Your task to perform on an android device: turn on data saver in the chrome app Image 0: 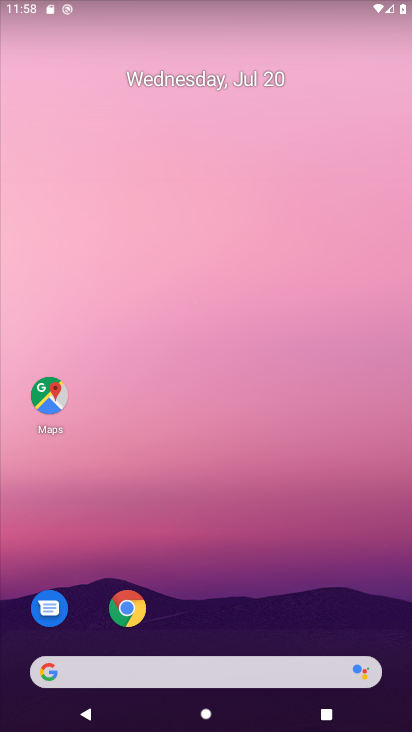
Step 0: drag from (238, 615) to (314, 16)
Your task to perform on an android device: turn on data saver in the chrome app Image 1: 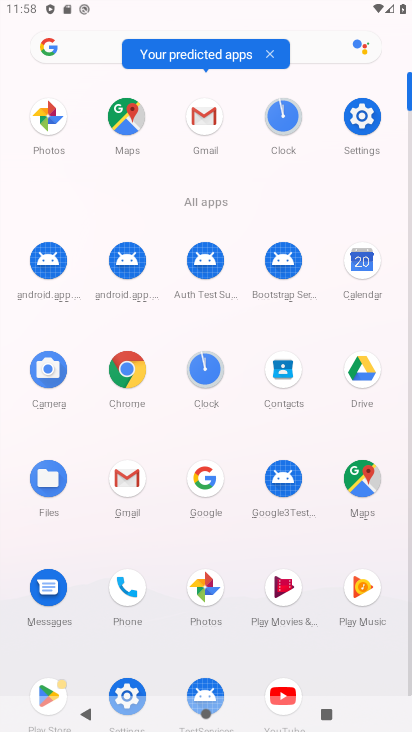
Step 1: click (125, 385)
Your task to perform on an android device: turn on data saver in the chrome app Image 2: 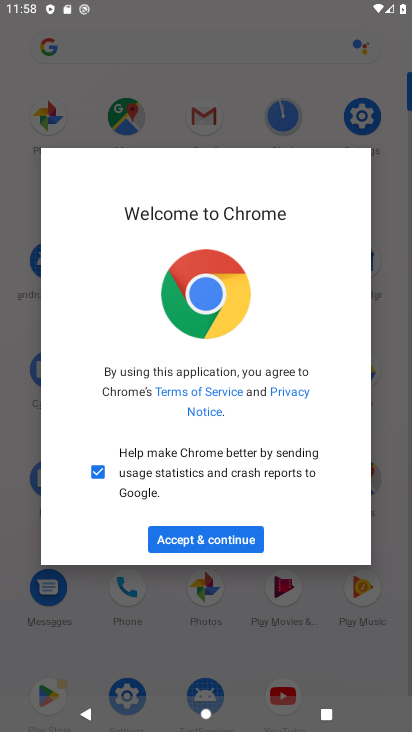
Step 2: click (187, 535)
Your task to perform on an android device: turn on data saver in the chrome app Image 3: 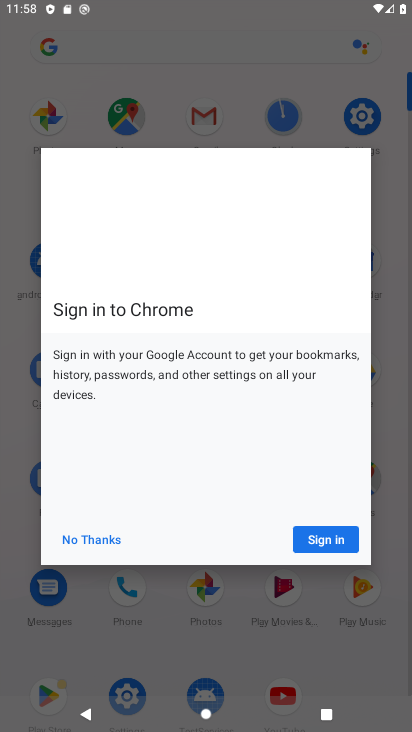
Step 3: click (345, 538)
Your task to perform on an android device: turn on data saver in the chrome app Image 4: 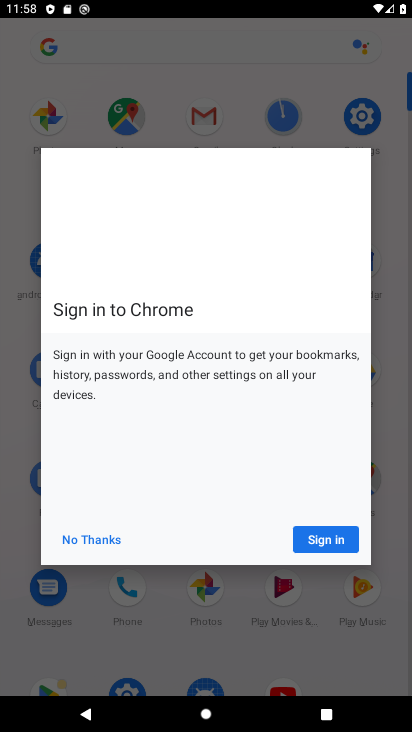
Step 4: click (316, 539)
Your task to perform on an android device: turn on data saver in the chrome app Image 5: 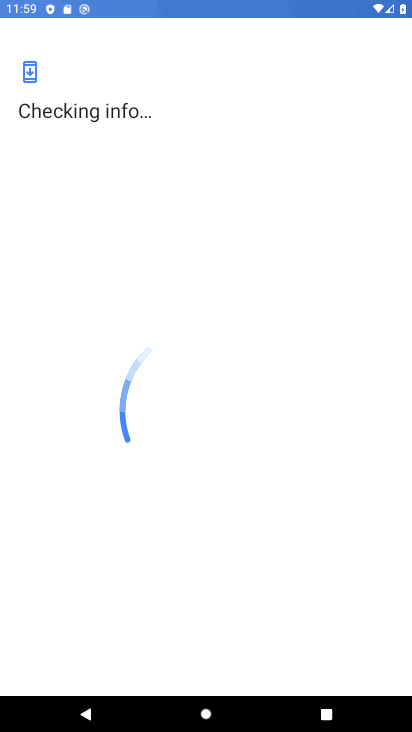
Step 5: press back button
Your task to perform on an android device: turn on data saver in the chrome app Image 6: 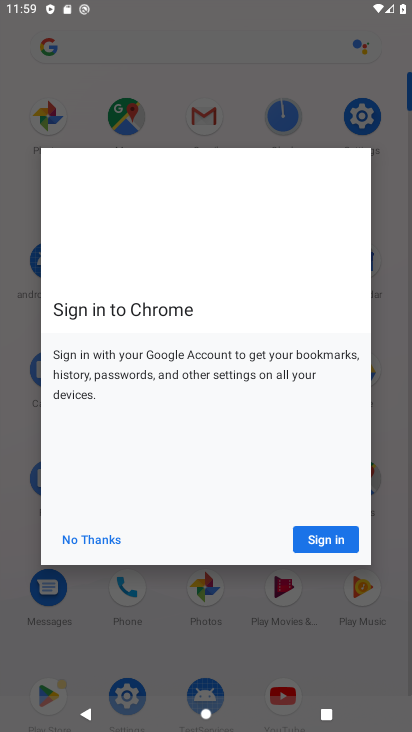
Step 6: click (89, 535)
Your task to perform on an android device: turn on data saver in the chrome app Image 7: 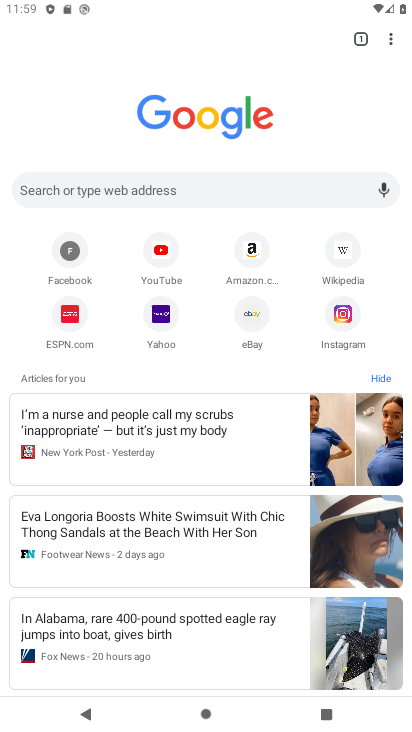
Step 7: click (387, 37)
Your task to perform on an android device: turn on data saver in the chrome app Image 8: 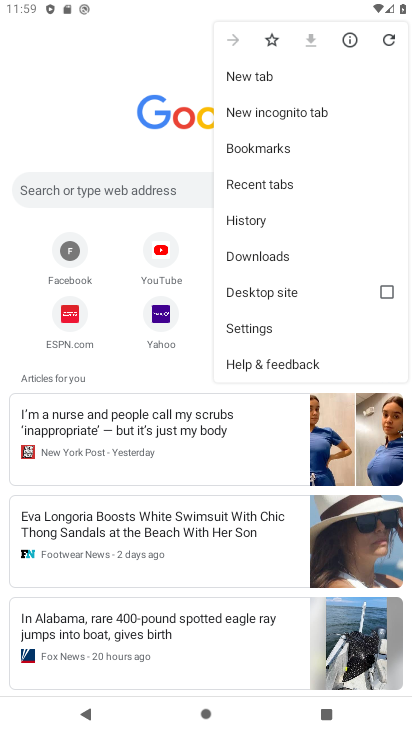
Step 8: click (262, 333)
Your task to perform on an android device: turn on data saver in the chrome app Image 9: 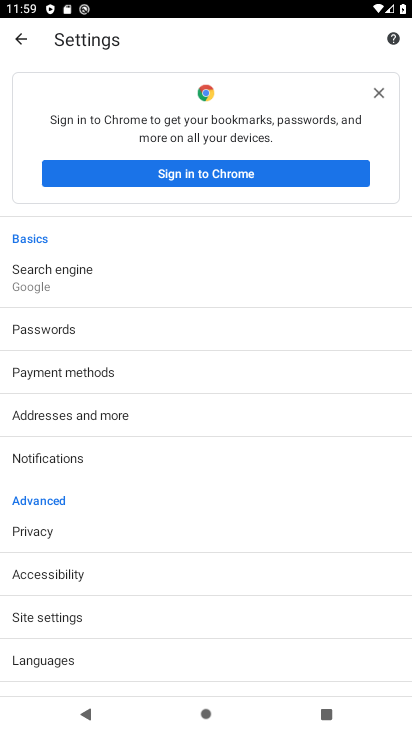
Step 9: drag from (56, 643) to (81, 454)
Your task to perform on an android device: turn on data saver in the chrome app Image 10: 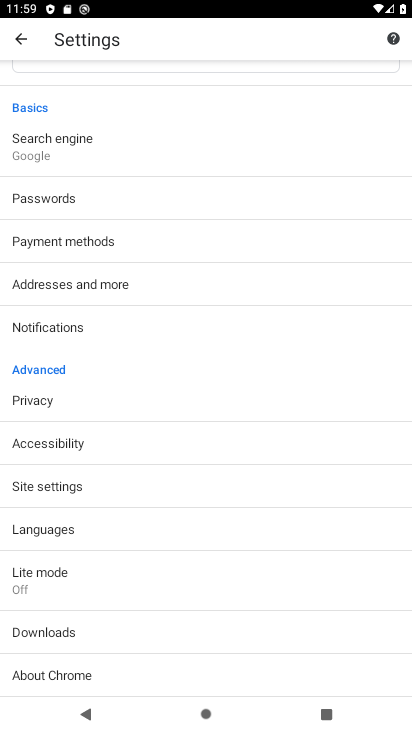
Step 10: click (54, 585)
Your task to perform on an android device: turn on data saver in the chrome app Image 11: 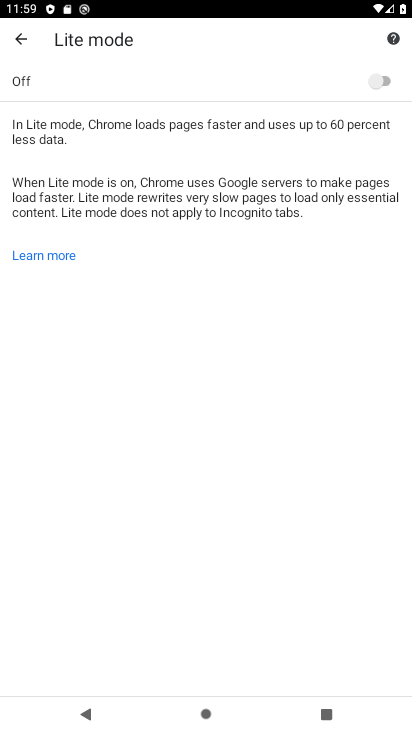
Step 11: click (347, 88)
Your task to perform on an android device: turn on data saver in the chrome app Image 12: 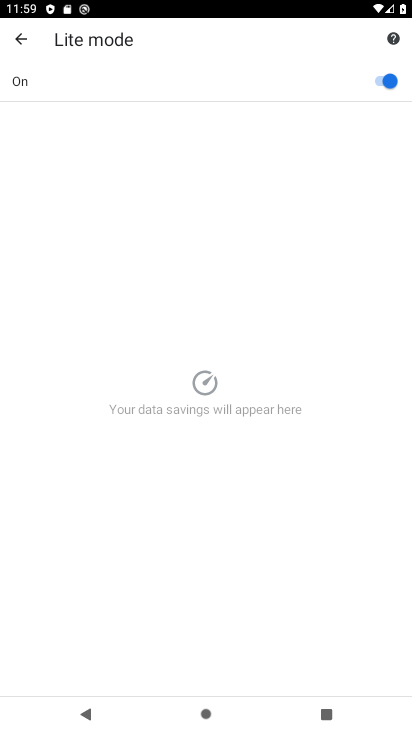
Step 12: task complete